Your task to perform on an android device: turn off javascript in the chrome app Image 0: 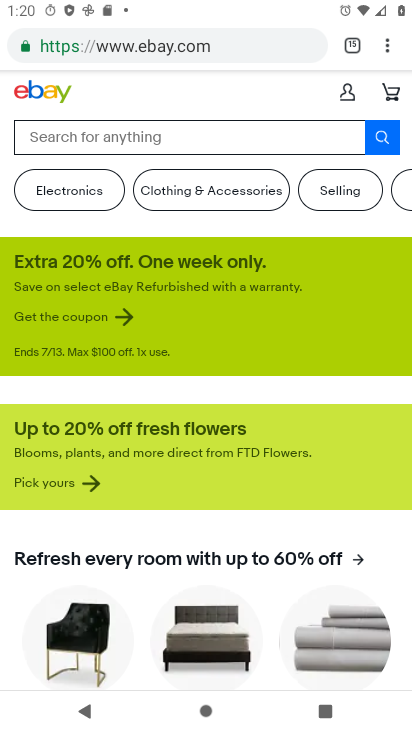
Step 0: press home button
Your task to perform on an android device: turn off javascript in the chrome app Image 1: 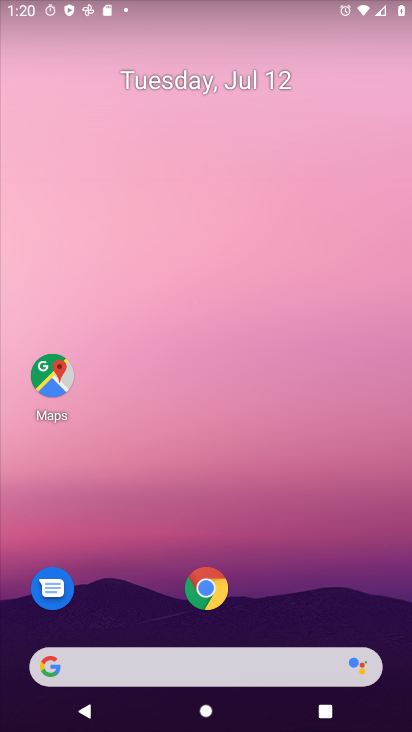
Step 1: click (214, 597)
Your task to perform on an android device: turn off javascript in the chrome app Image 2: 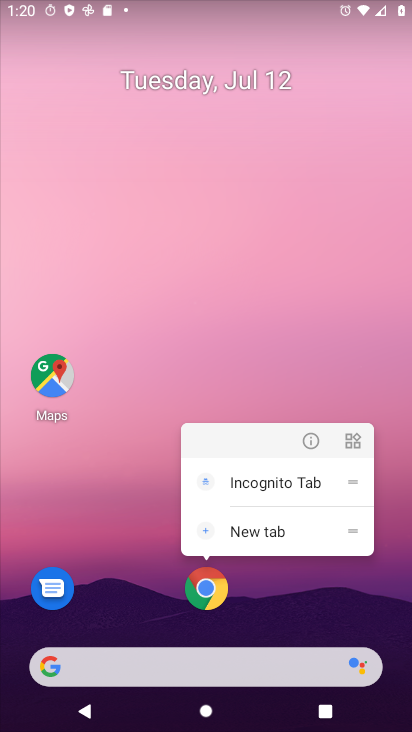
Step 2: click (212, 602)
Your task to perform on an android device: turn off javascript in the chrome app Image 3: 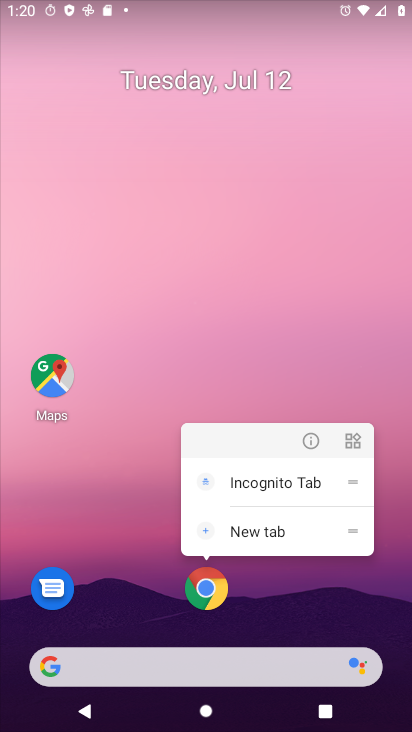
Step 3: click (212, 585)
Your task to perform on an android device: turn off javascript in the chrome app Image 4: 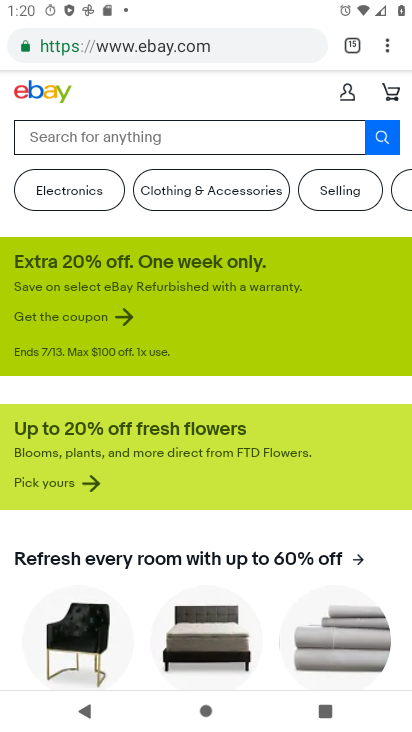
Step 4: drag from (388, 45) to (247, 549)
Your task to perform on an android device: turn off javascript in the chrome app Image 5: 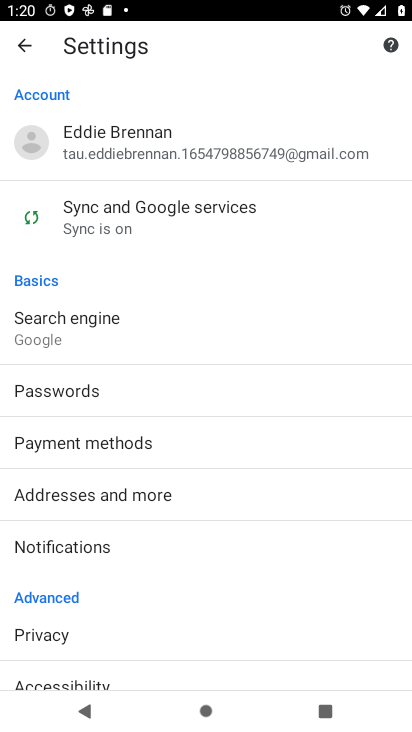
Step 5: drag from (173, 621) to (257, 269)
Your task to perform on an android device: turn off javascript in the chrome app Image 6: 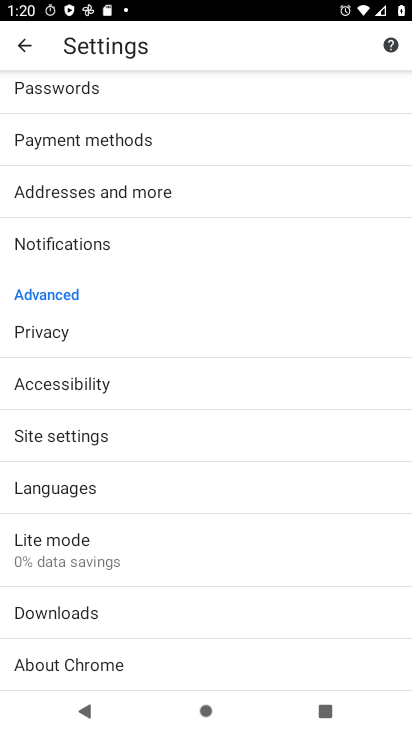
Step 6: click (70, 440)
Your task to perform on an android device: turn off javascript in the chrome app Image 7: 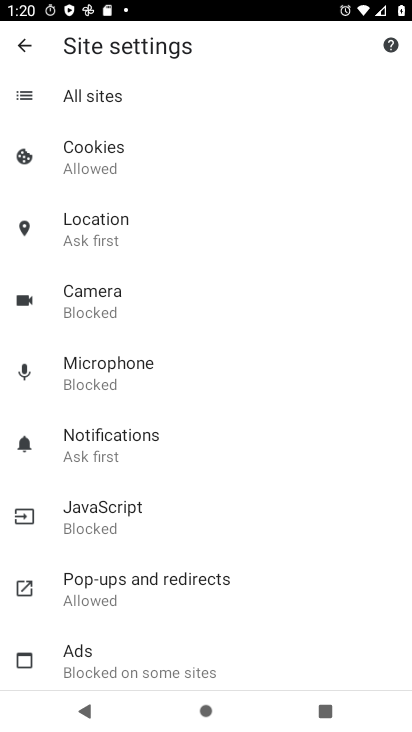
Step 7: click (120, 505)
Your task to perform on an android device: turn off javascript in the chrome app Image 8: 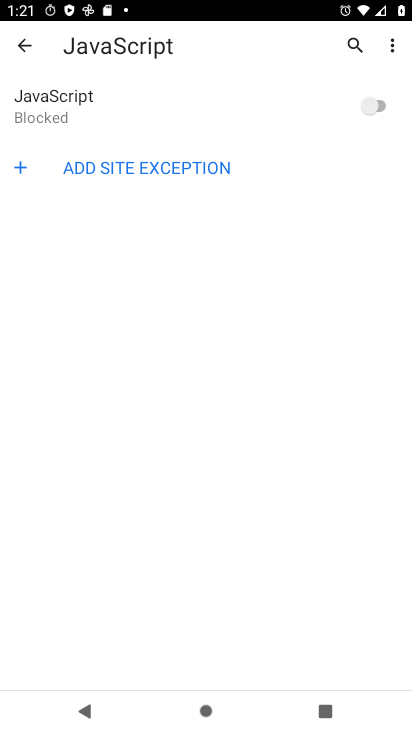
Step 8: task complete